Your task to perform on an android device: delete the emails in spam in the gmail app Image 0: 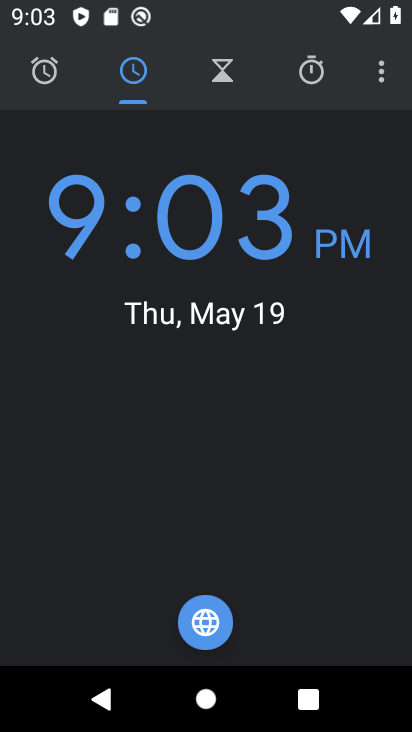
Step 0: press home button
Your task to perform on an android device: delete the emails in spam in the gmail app Image 1: 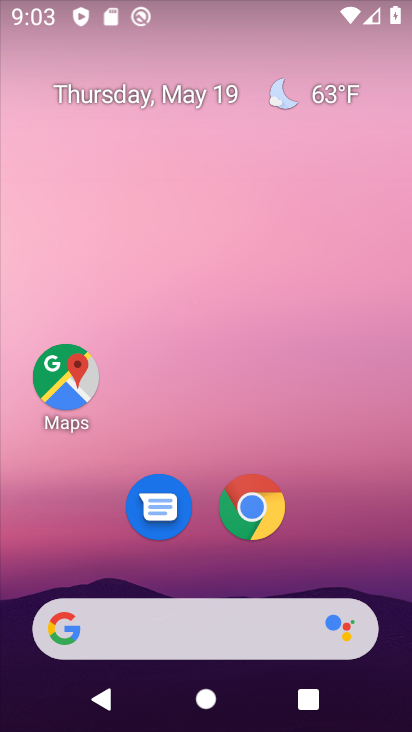
Step 1: drag from (390, 571) to (305, 63)
Your task to perform on an android device: delete the emails in spam in the gmail app Image 2: 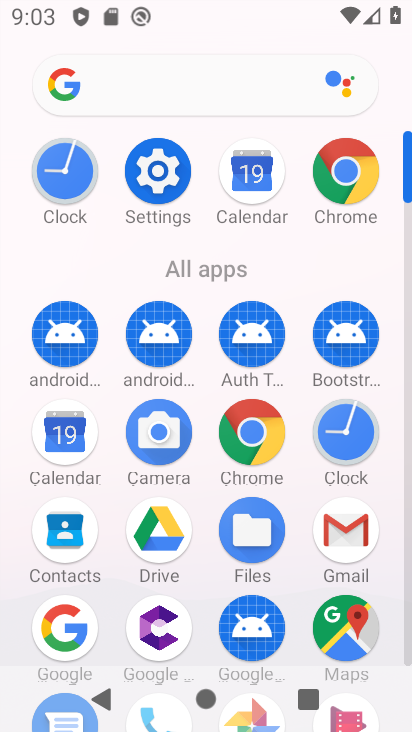
Step 2: click (361, 525)
Your task to perform on an android device: delete the emails in spam in the gmail app Image 3: 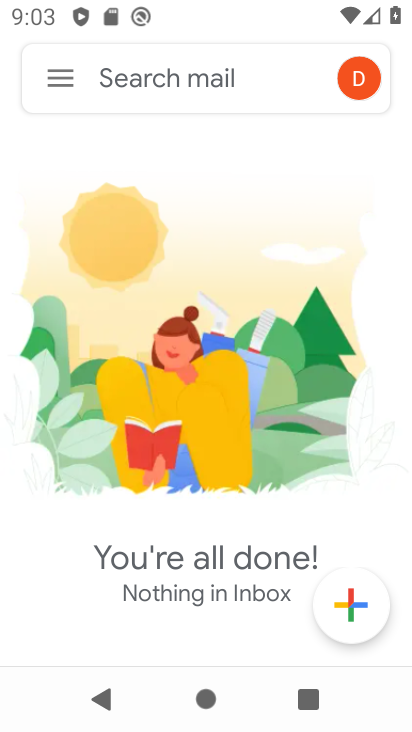
Step 3: click (69, 89)
Your task to perform on an android device: delete the emails in spam in the gmail app Image 4: 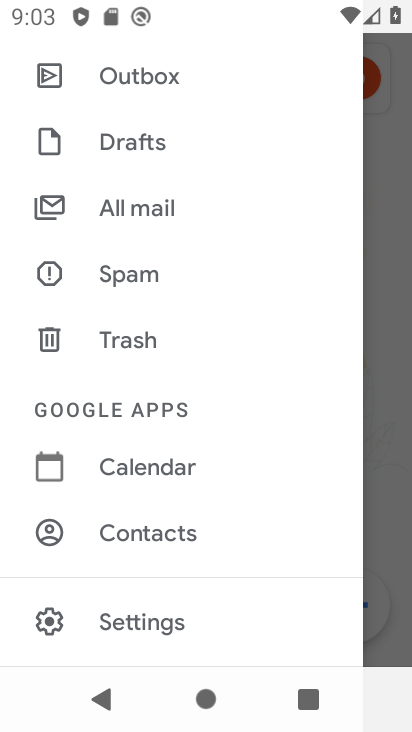
Step 4: click (155, 285)
Your task to perform on an android device: delete the emails in spam in the gmail app Image 5: 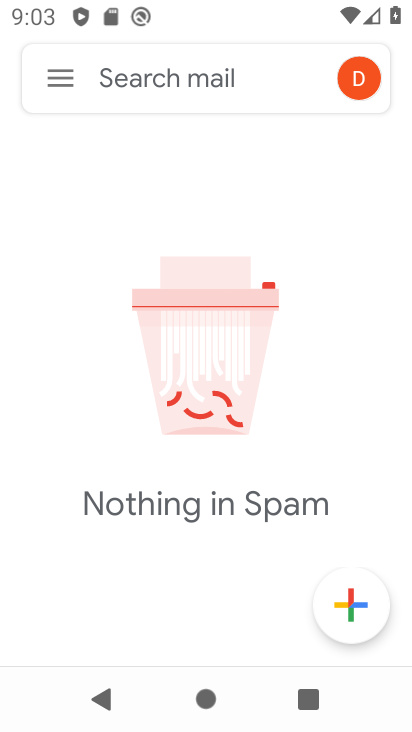
Step 5: task complete